Your task to perform on an android device: Open Chrome and go to settings Image 0: 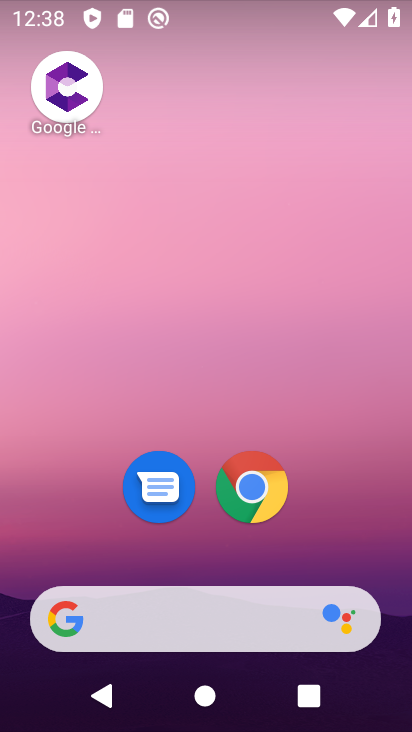
Step 0: click (258, 491)
Your task to perform on an android device: Open Chrome and go to settings Image 1: 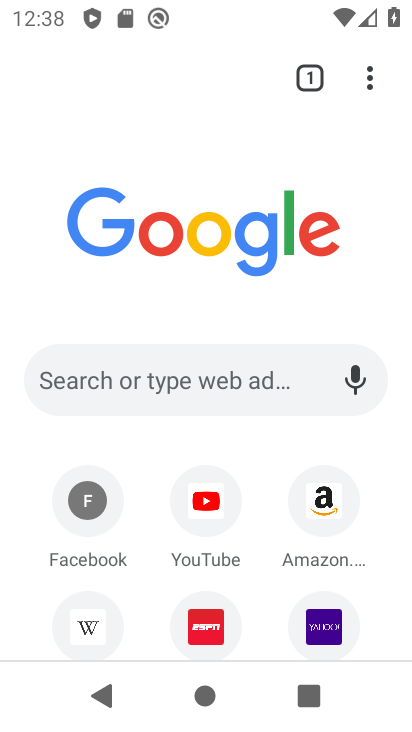
Step 1: click (362, 77)
Your task to perform on an android device: Open Chrome and go to settings Image 2: 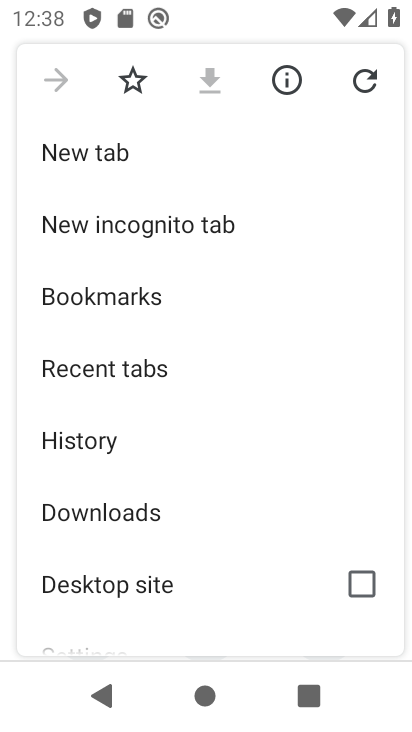
Step 2: drag from (238, 527) to (235, 139)
Your task to perform on an android device: Open Chrome and go to settings Image 3: 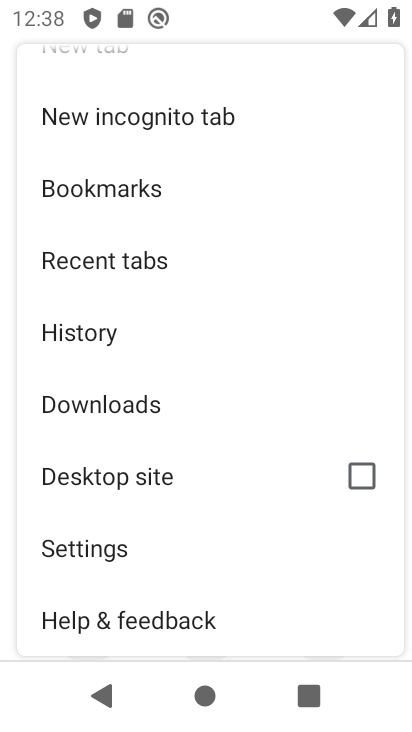
Step 3: click (110, 538)
Your task to perform on an android device: Open Chrome and go to settings Image 4: 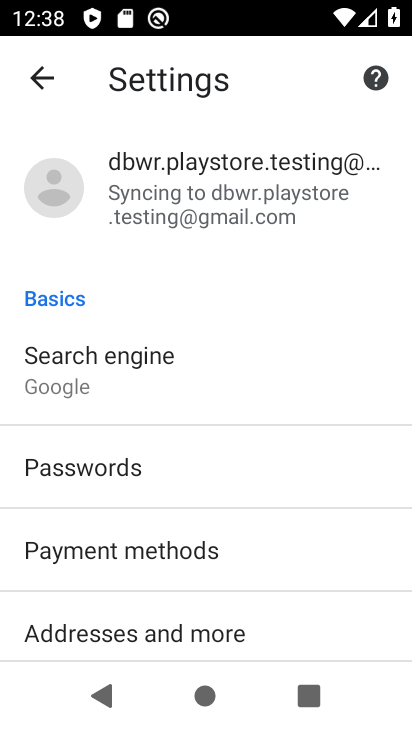
Step 4: task complete